Your task to perform on an android device: Show me recent news Image 0: 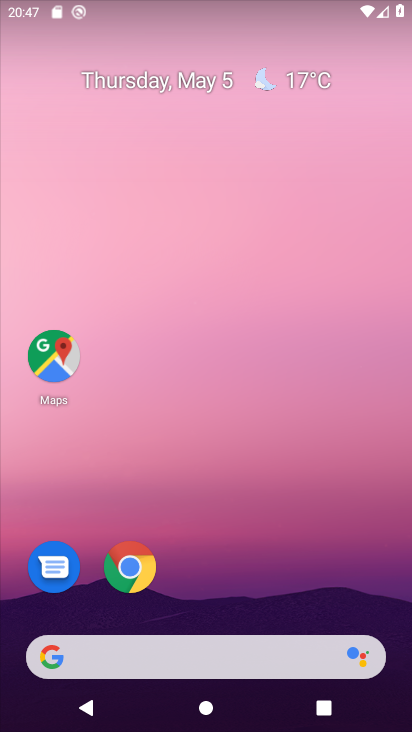
Step 0: click (55, 661)
Your task to perform on an android device: Show me recent news Image 1: 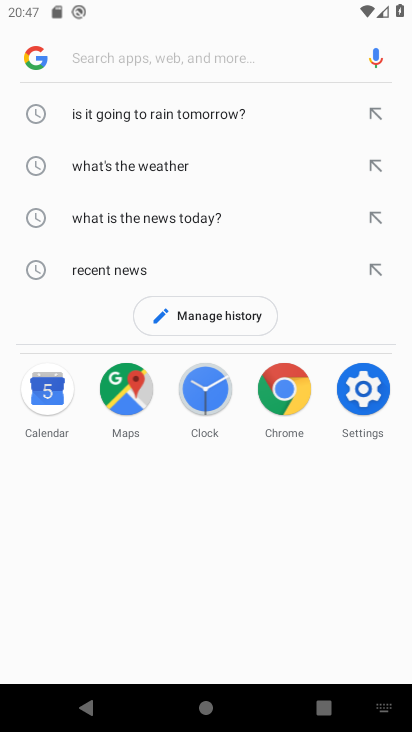
Step 1: click (30, 57)
Your task to perform on an android device: Show me recent news Image 2: 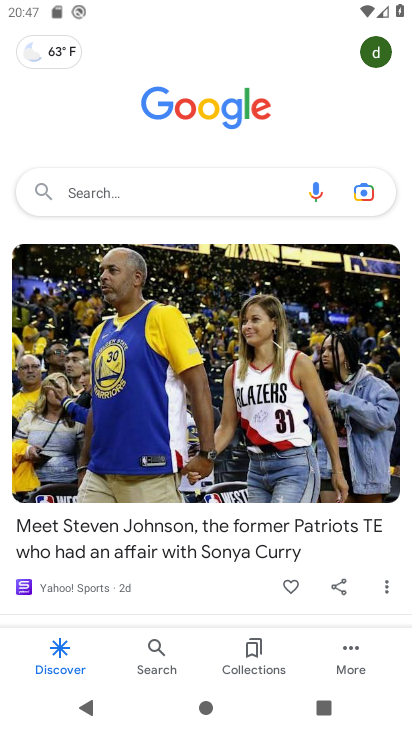
Step 2: click (212, 441)
Your task to perform on an android device: Show me recent news Image 3: 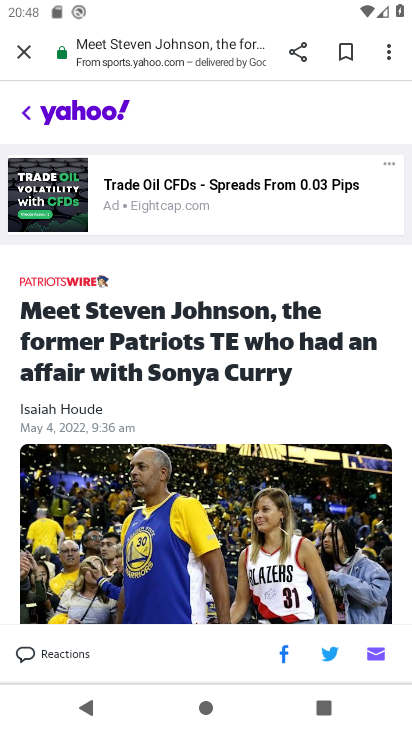
Step 3: task complete